Your task to perform on an android device: Turn off the flashlight Image 0: 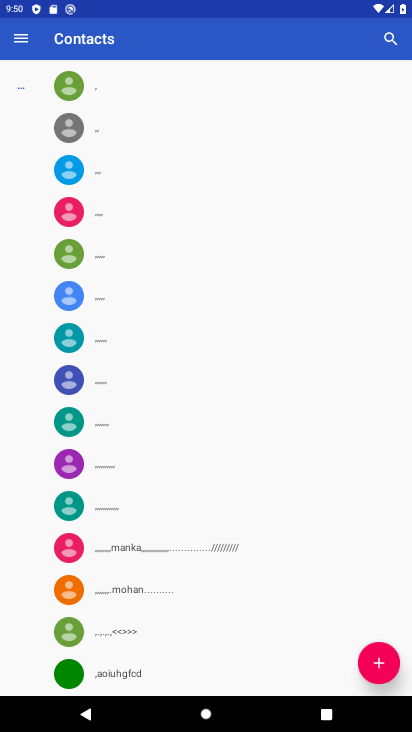
Step 0: press home button
Your task to perform on an android device: Turn off the flashlight Image 1: 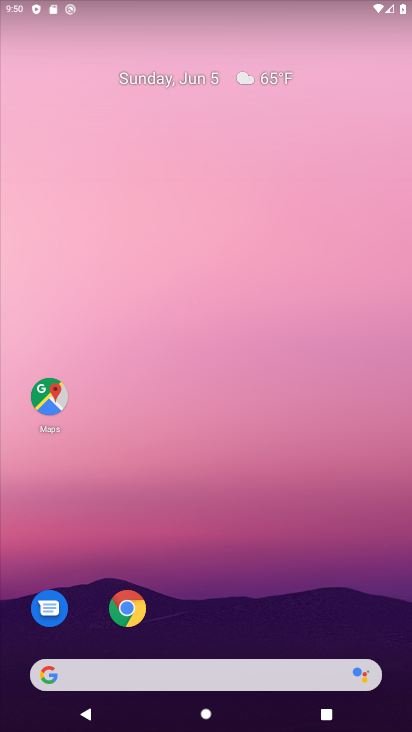
Step 1: drag from (223, 671) to (187, 179)
Your task to perform on an android device: Turn off the flashlight Image 2: 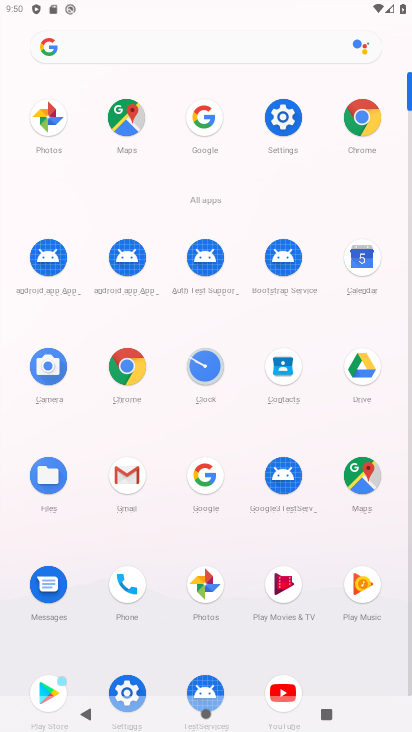
Step 2: click (270, 129)
Your task to perform on an android device: Turn off the flashlight Image 3: 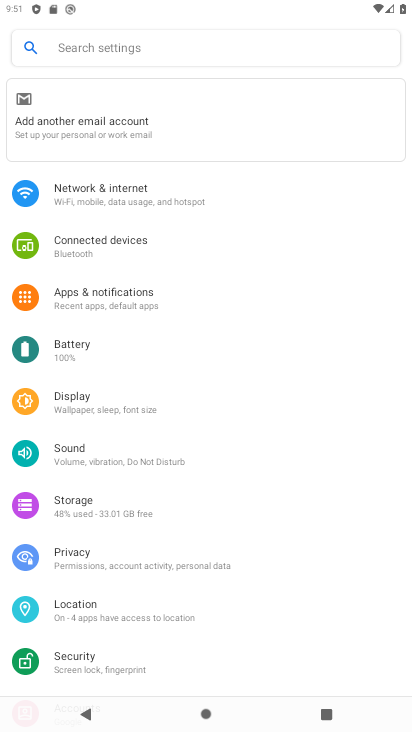
Step 3: task complete